Your task to perform on an android device: Open internet settings Image 0: 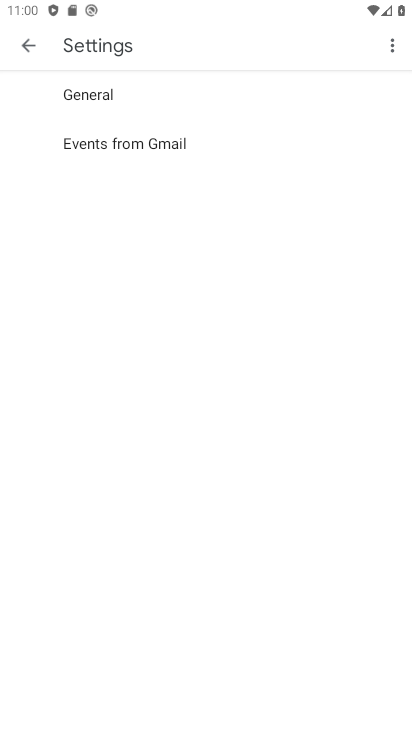
Step 0: press home button
Your task to perform on an android device: Open internet settings Image 1: 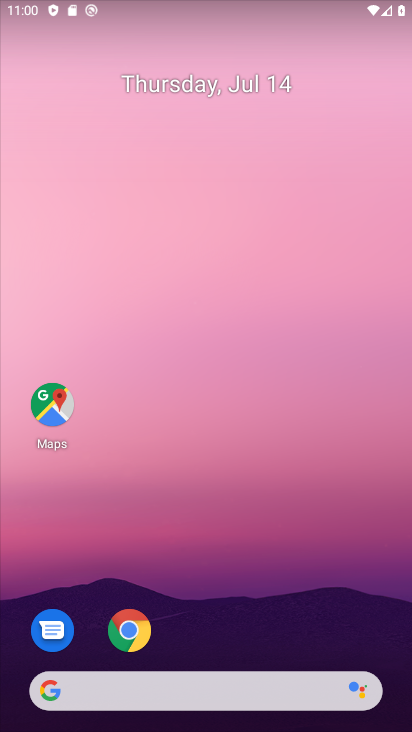
Step 1: drag from (238, 660) to (322, 96)
Your task to perform on an android device: Open internet settings Image 2: 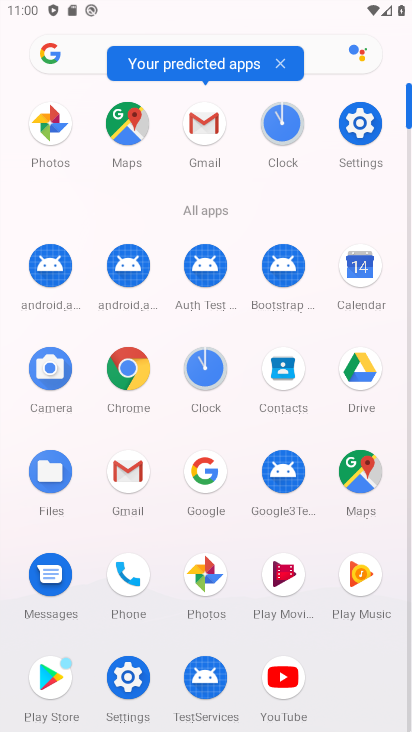
Step 2: click (126, 680)
Your task to perform on an android device: Open internet settings Image 3: 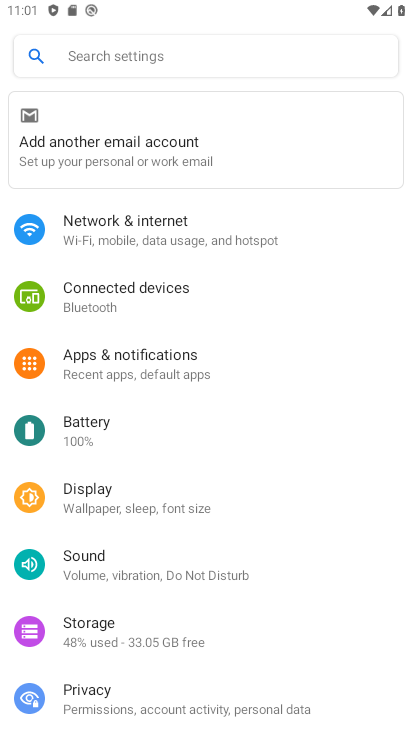
Step 3: click (180, 245)
Your task to perform on an android device: Open internet settings Image 4: 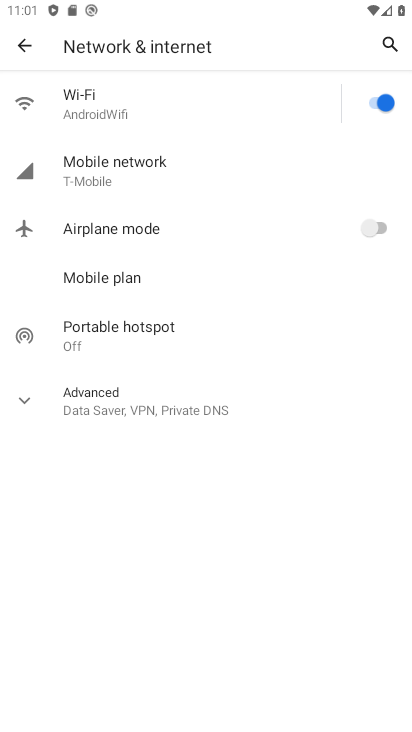
Step 4: click (181, 169)
Your task to perform on an android device: Open internet settings Image 5: 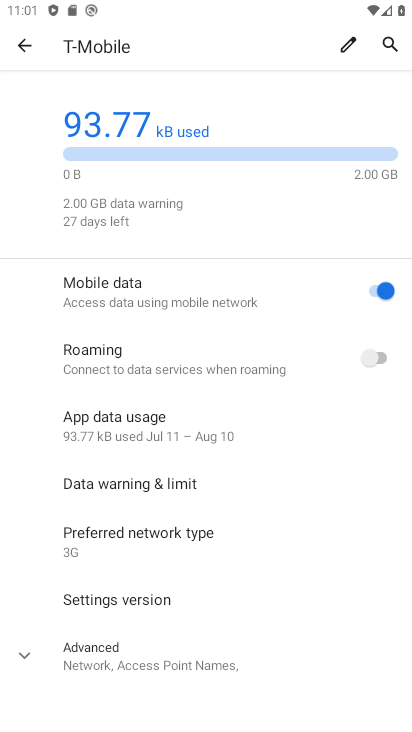
Step 5: task complete